Your task to perform on an android device: Search for flights from London to Paris Image 0: 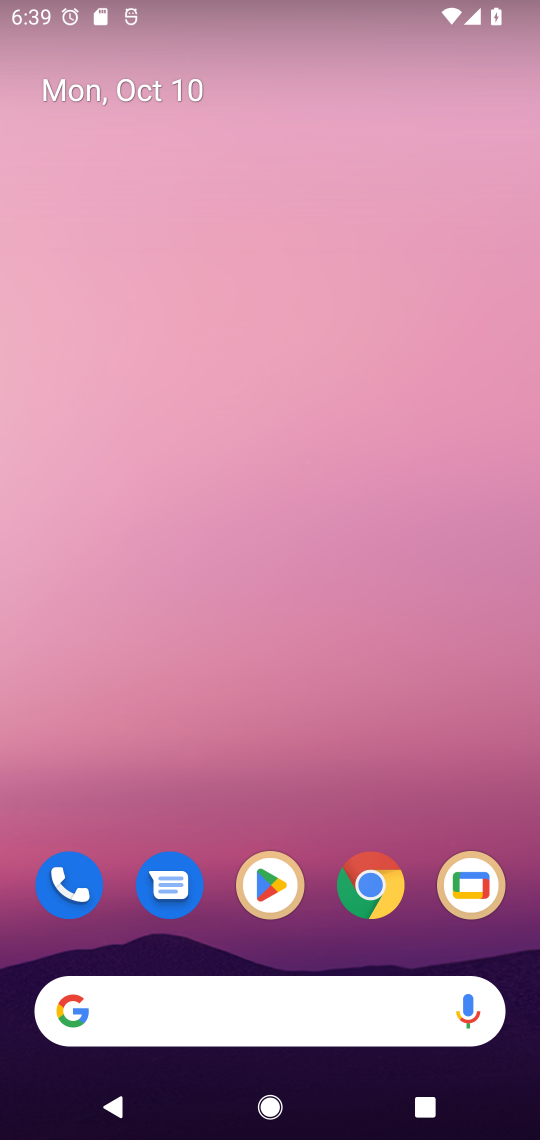
Step 0: click (390, 876)
Your task to perform on an android device: Search for flights from London to Paris Image 1: 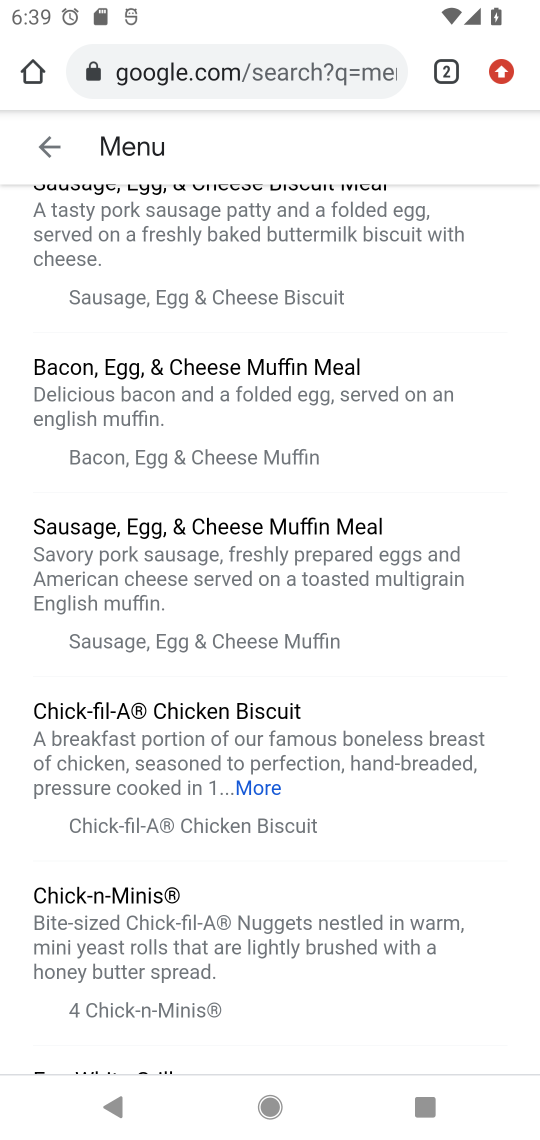
Step 1: click (233, 65)
Your task to perform on an android device: Search for flights from London to Paris Image 2: 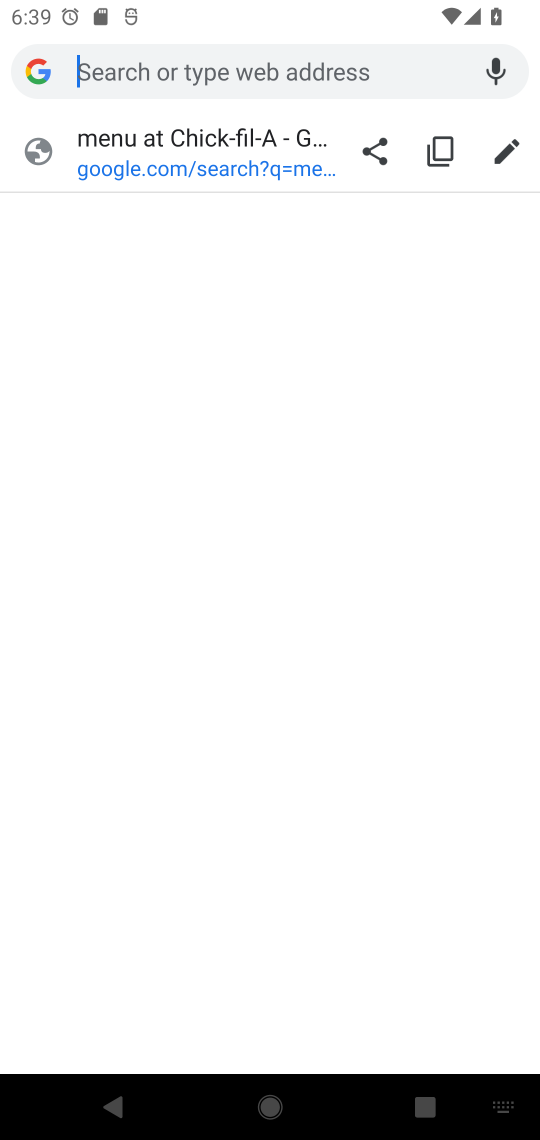
Step 2: click (298, 69)
Your task to perform on an android device: Search for flights from London to Paris Image 3: 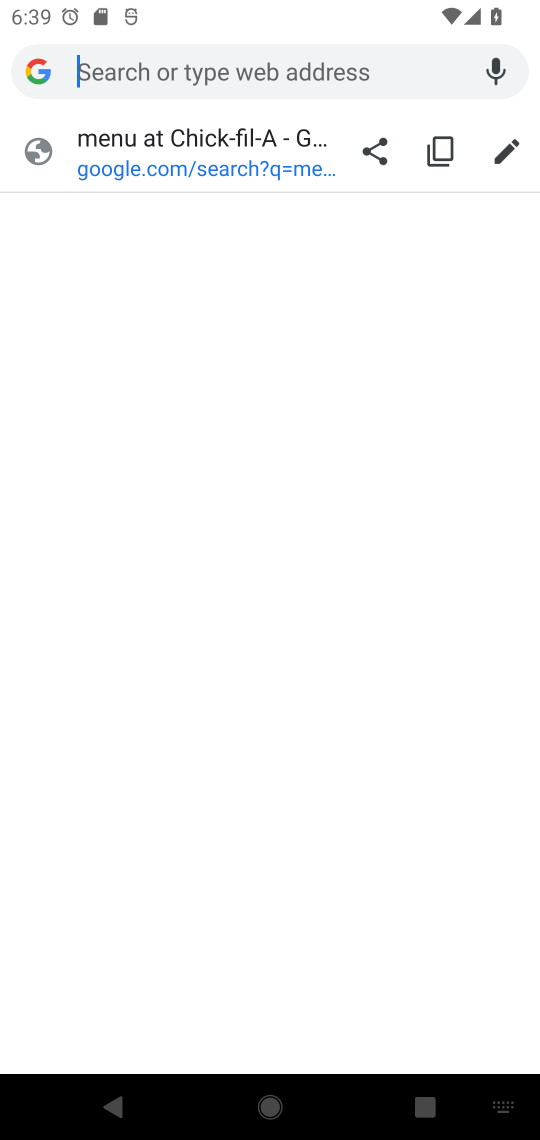
Step 3: type "Search for flights from London to Paris"
Your task to perform on an android device: Search for flights from London to Paris Image 4: 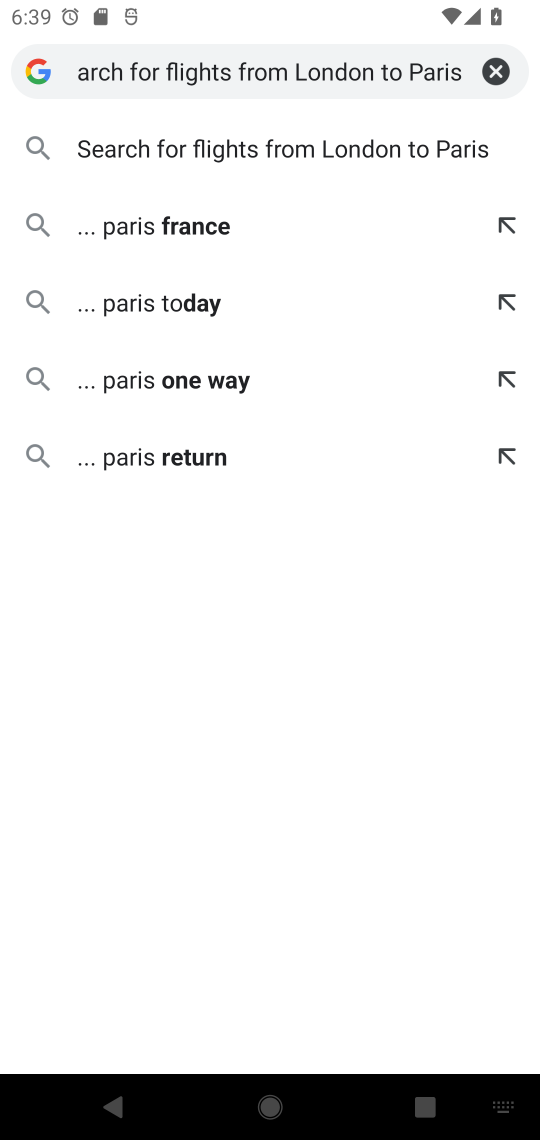
Step 4: click (344, 153)
Your task to perform on an android device: Search for flights from London to Paris Image 5: 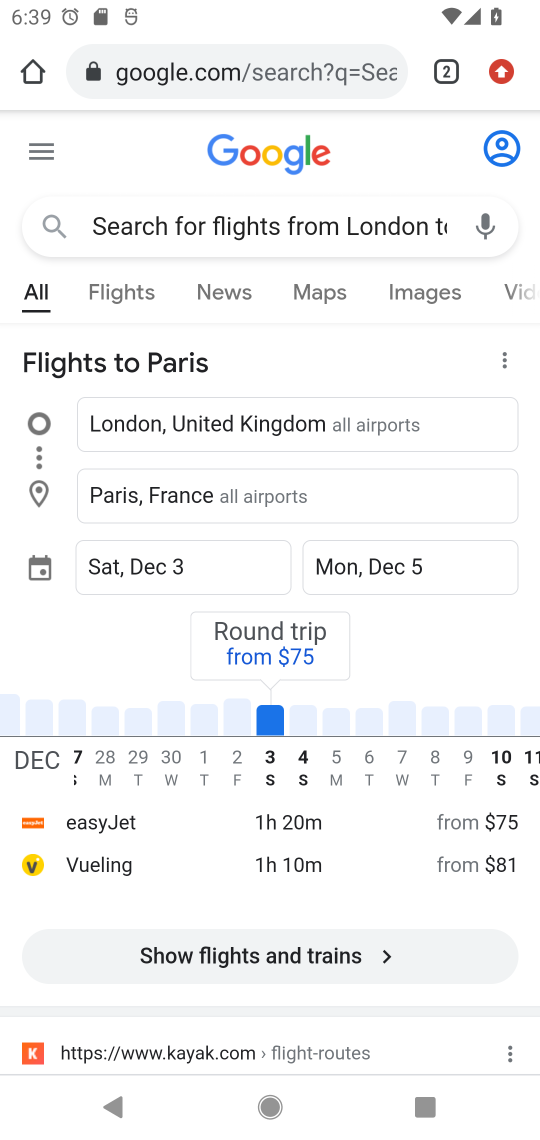
Step 5: click (341, 963)
Your task to perform on an android device: Search for flights from London to Paris Image 6: 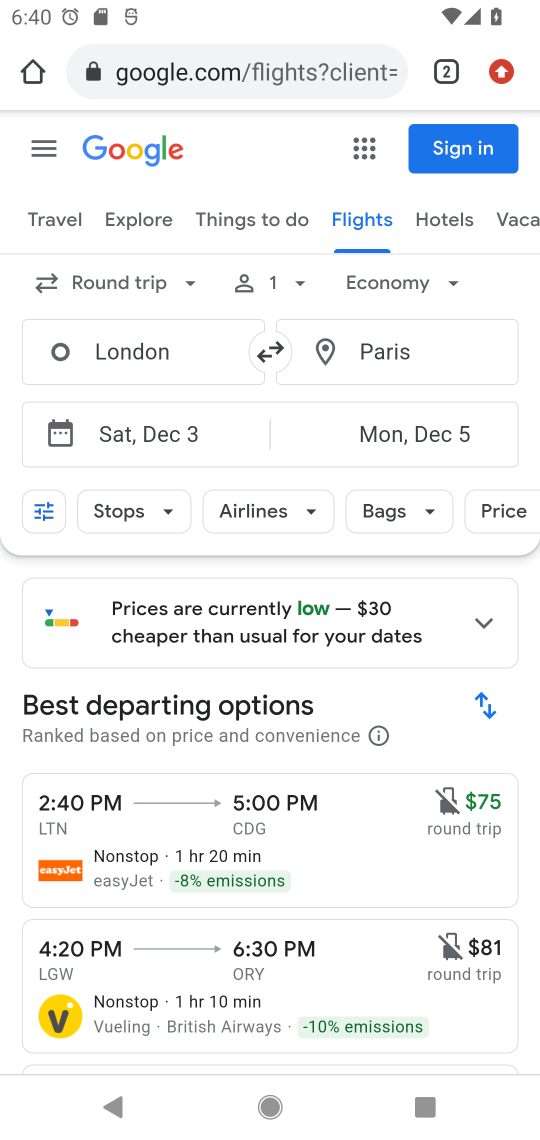
Step 6: task complete